Your task to perform on an android device: toggle data saver in the chrome app Image 0: 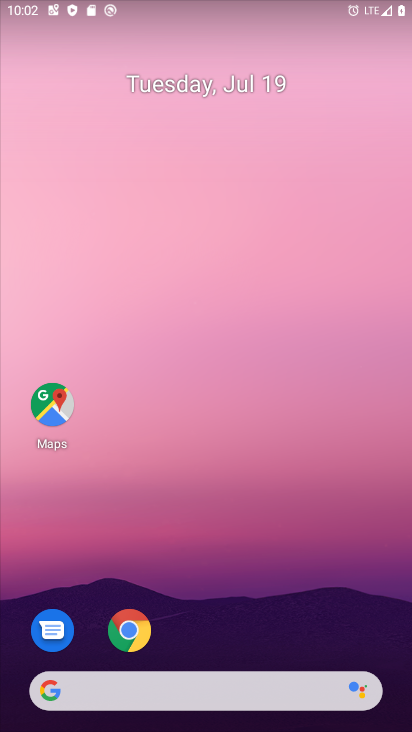
Step 0: click (135, 628)
Your task to perform on an android device: toggle data saver in the chrome app Image 1: 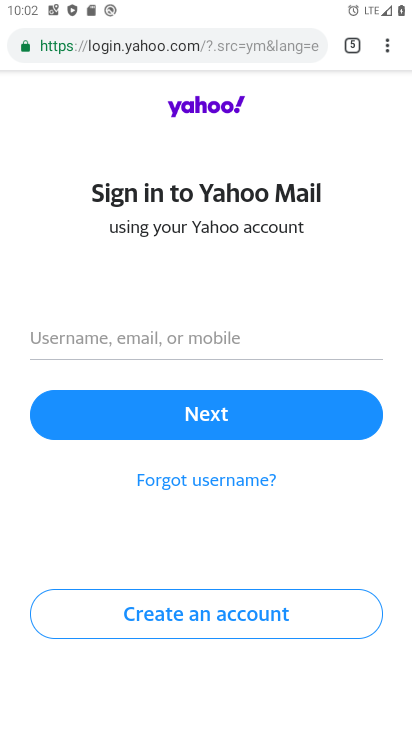
Step 1: click (384, 42)
Your task to perform on an android device: toggle data saver in the chrome app Image 2: 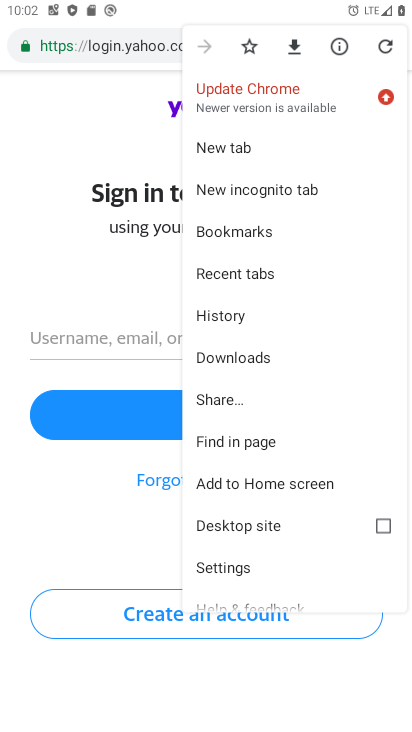
Step 2: click (231, 568)
Your task to perform on an android device: toggle data saver in the chrome app Image 3: 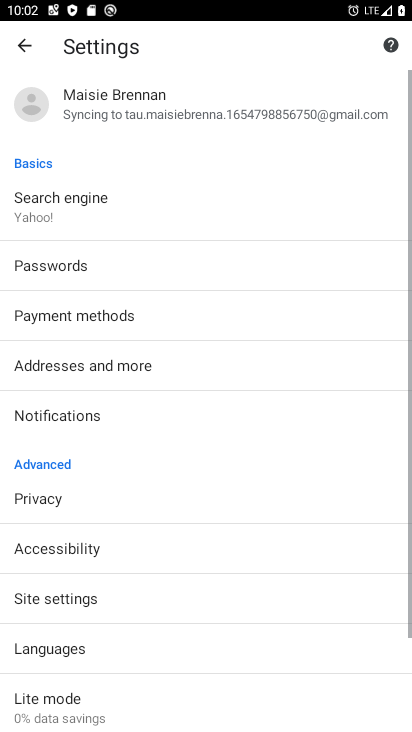
Step 3: click (53, 695)
Your task to perform on an android device: toggle data saver in the chrome app Image 4: 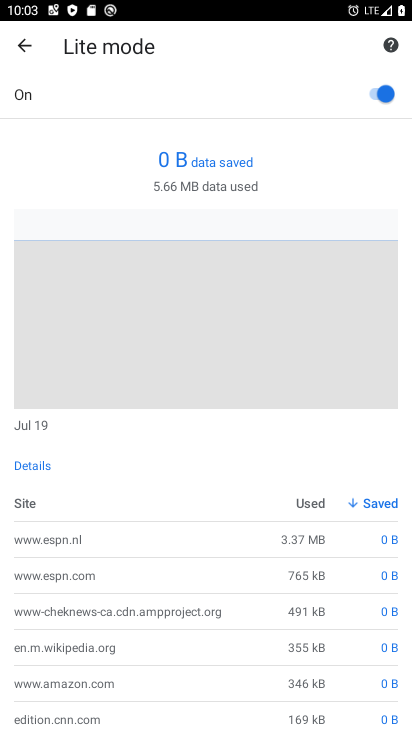
Step 4: click (383, 95)
Your task to perform on an android device: toggle data saver in the chrome app Image 5: 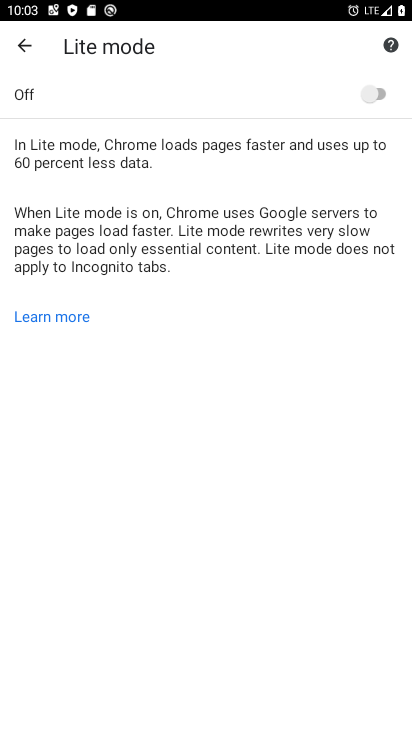
Step 5: task complete